Your task to perform on an android device: allow cookies in the chrome app Image 0: 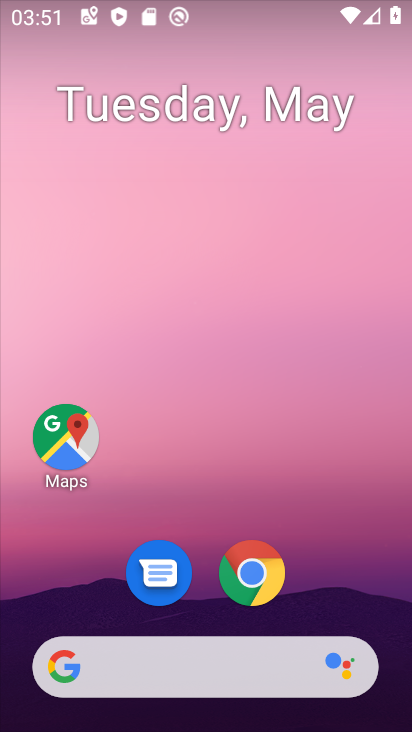
Step 0: click (268, 557)
Your task to perform on an android device: allow cookies in the chrome app Image 1: 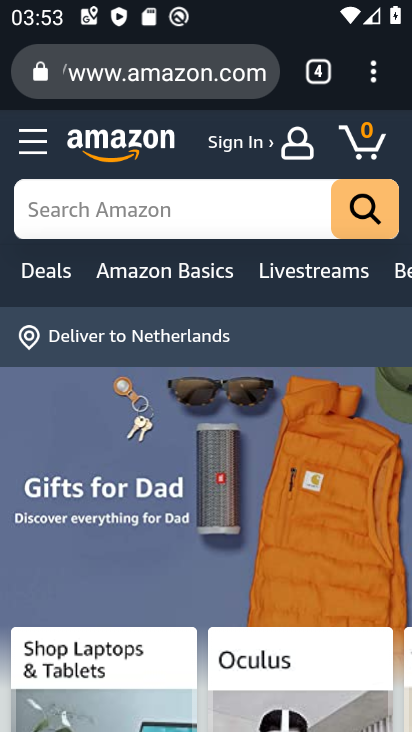
Step 1: drag from (376, 74) to (153, 562)
Your task to perform on an android device: allow cookies in the chrome app Image 2: 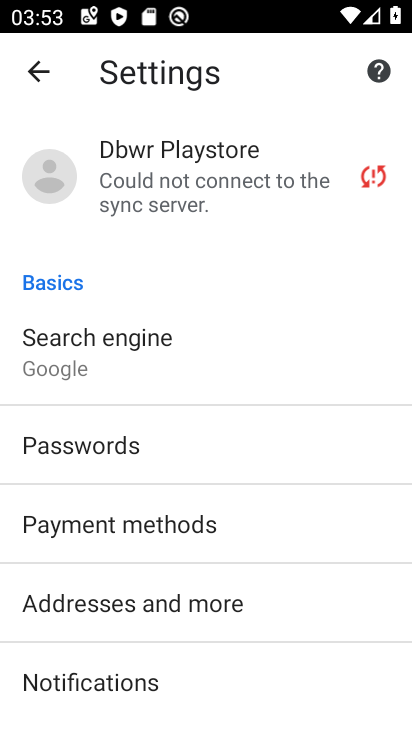
Step 2: drag from (134, 668) to (215, 226)
Your task to perform on an android device: allow cookies in the chrome app Image 3: 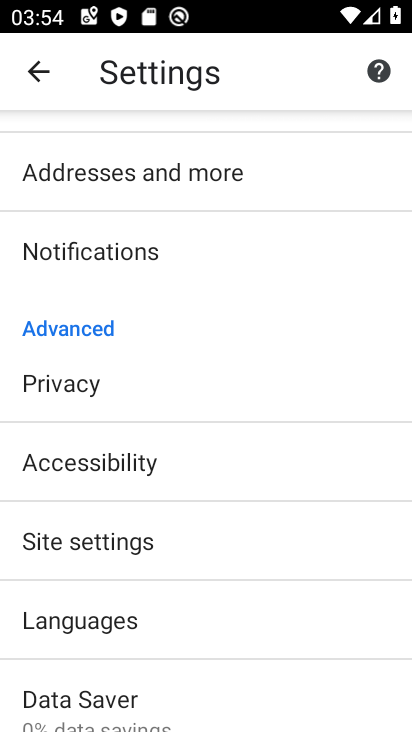
Step 3: click (138, 550)
Your task to perform on an android device: allow cookies in the chrome app Image 4: 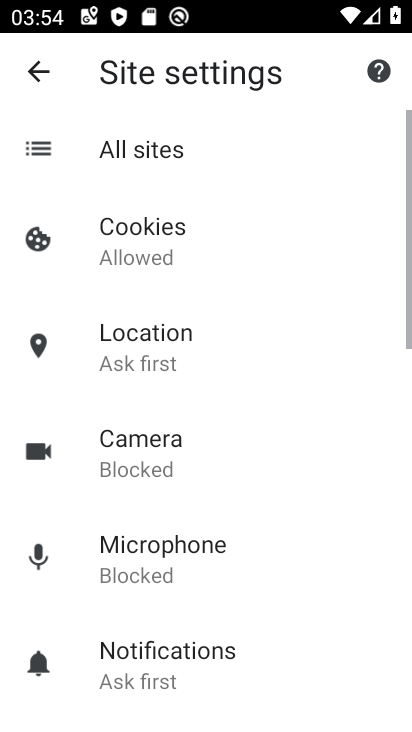
Step 4: click (154, 233)
Your task to perform on an android device: allow cookies in the chrome app Image 5: 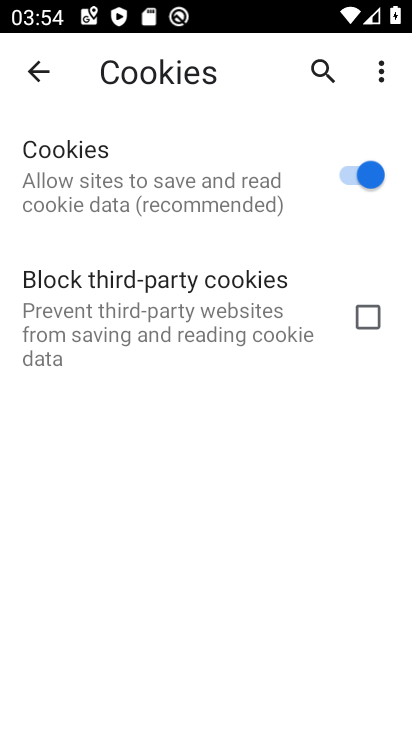
Step 5: task complete